Your task to perform on an android device: toggle notification dots Image 0: 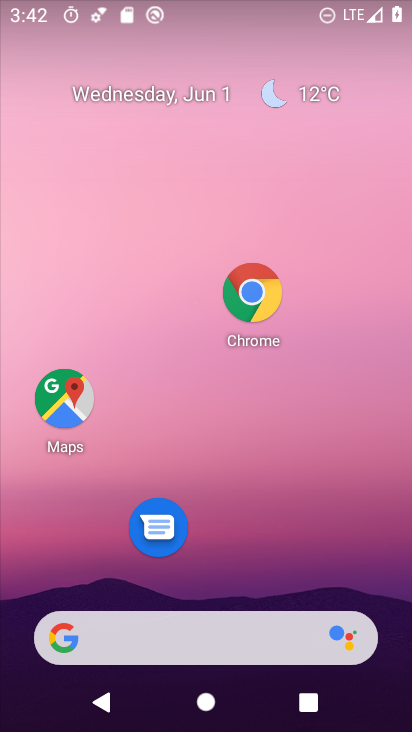
Step 0: drag from (236, 631) to (252, 236)
Your task to perform on an android device: toggle notification dots Image 1: 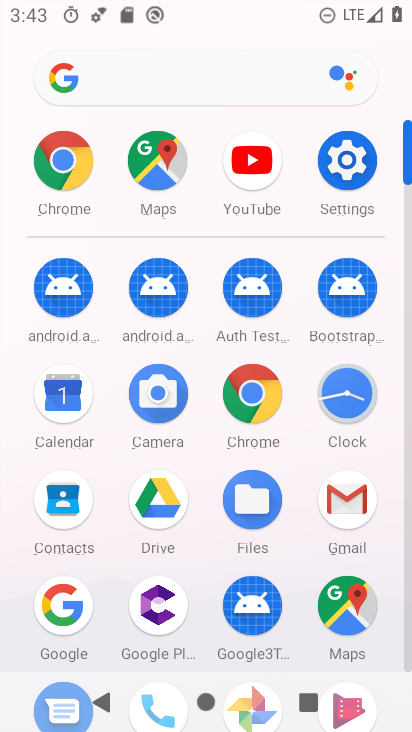
Step 1: click (358, 193)
Your task to perform on an android device: toggle notification dots Image 2: 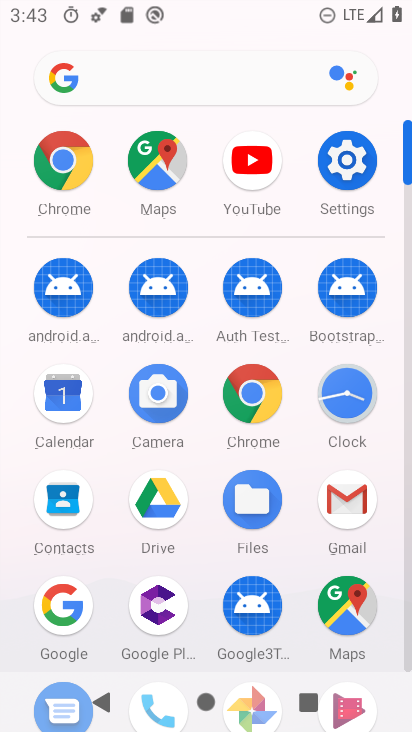
Step 2: click (343, 175)
Your task to perform on an android device: toggle notification dots Image 3: 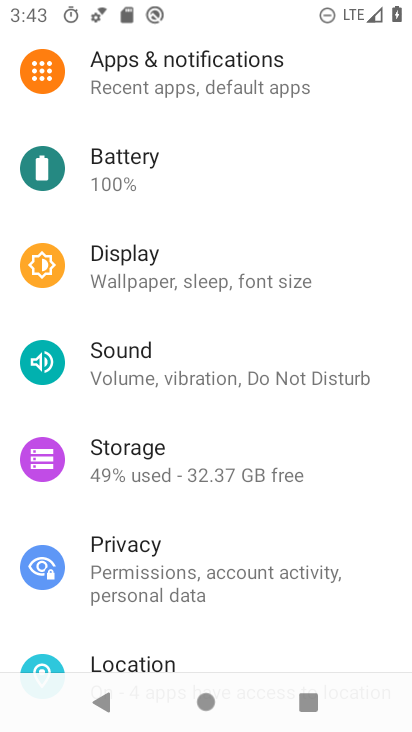
Step 3: drag from (232, 333) to (192, 605)
Your task to perform on an android device: toggle notification dots Image 4: 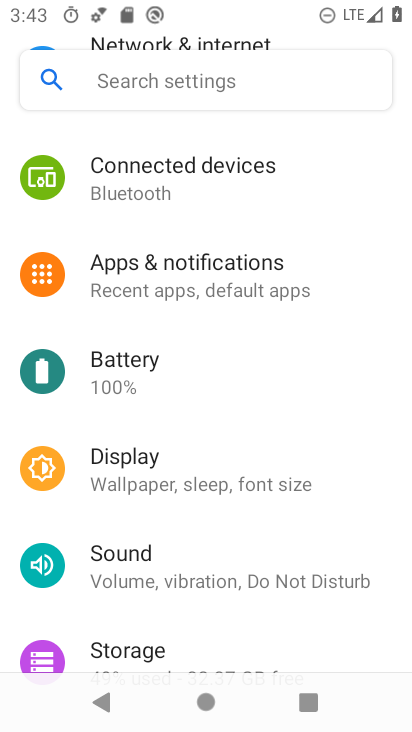
Step 4: click (264, 292)
Your task to perform on an android device: toggle notification dots Image 5: 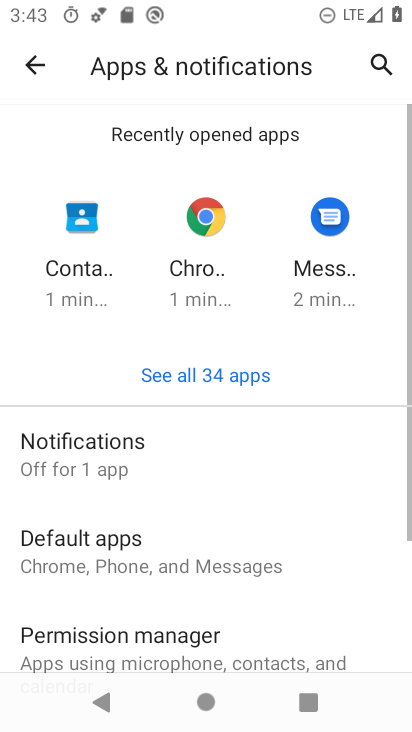
Step 5: drag from (162, 583) to (203, 274)
Your task to perform on an android device: toggle notification dots Image 6: 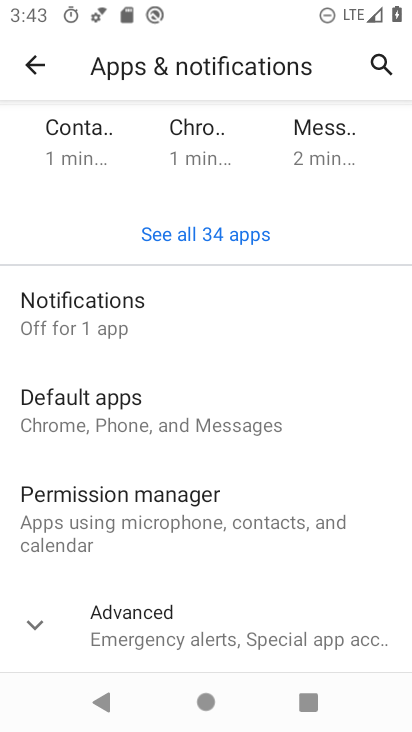
Step 6: click (162, 306)
Your task to perform on an android device: toggle notification dots Image 7: 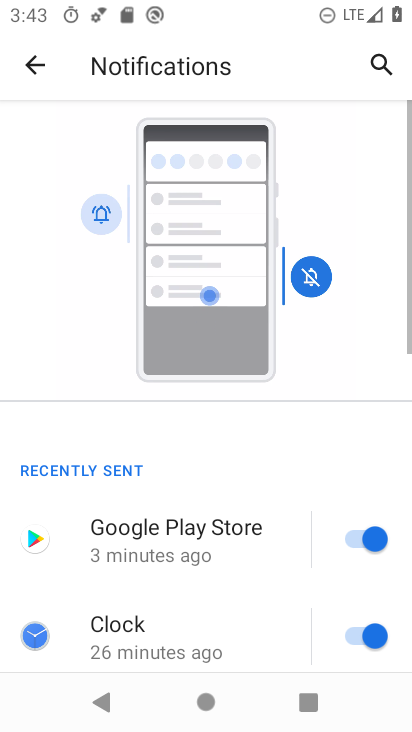
Step 7: drag from (150, 486) to (210, 191)
Your task to perform on an android device: toggle notification dots Image 8: 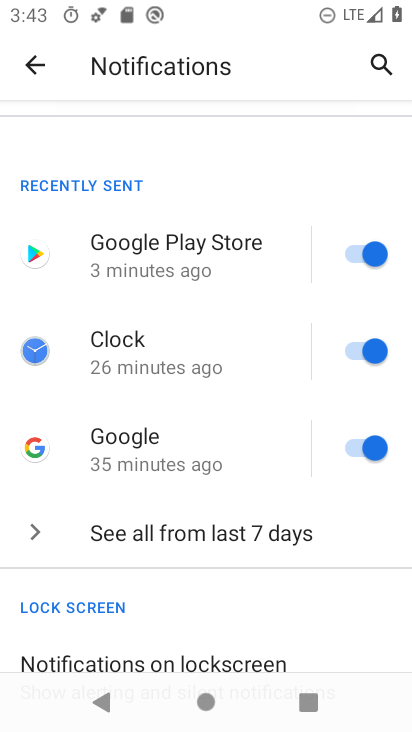
Step 8: drag from (164, 515) to (181, 398)
Your task to perform on an android device: toggle notification dots Image 9: 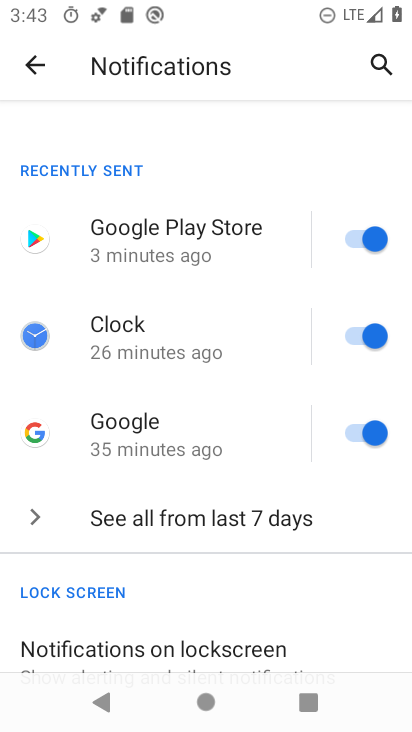
Step 9: drag from (189, 612) to (216, 157)
Your task to perform on an android device: toggle notification dots Image 10: 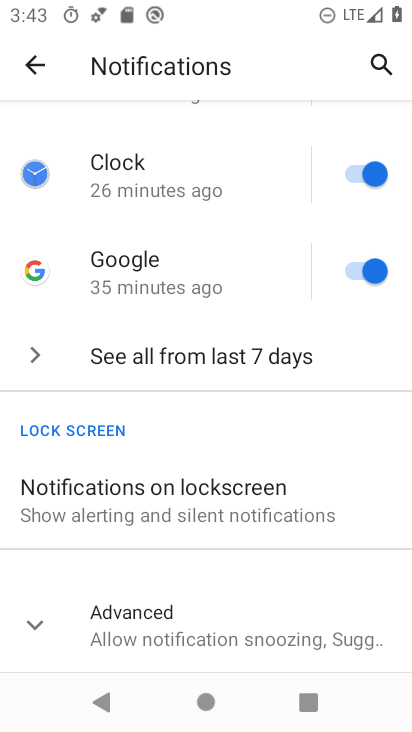
Step 10: click (158, 611)
Your task to perform on an android device: toggle notification dots Image 11: 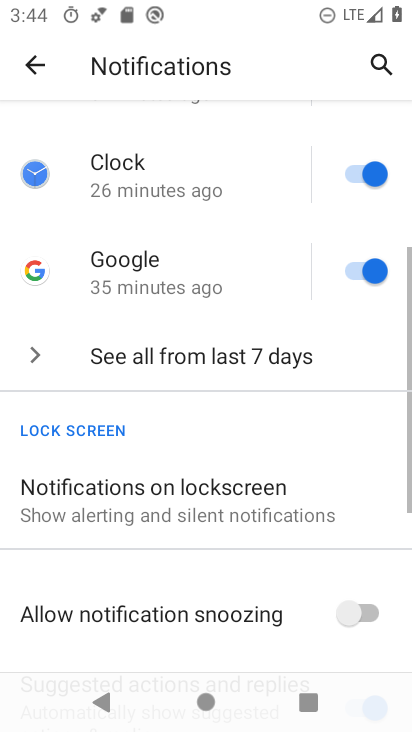
Step 11: drag from (151, 565) to (208, 130)
Your task to perform on an android device: toggle notification dots Image 12: 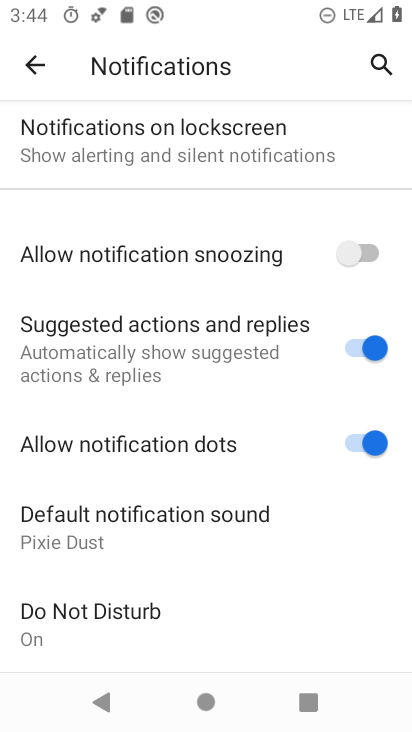
Step 12: click (223, 449)
Your task to perform on an android device: toggle notification dots Image 13: 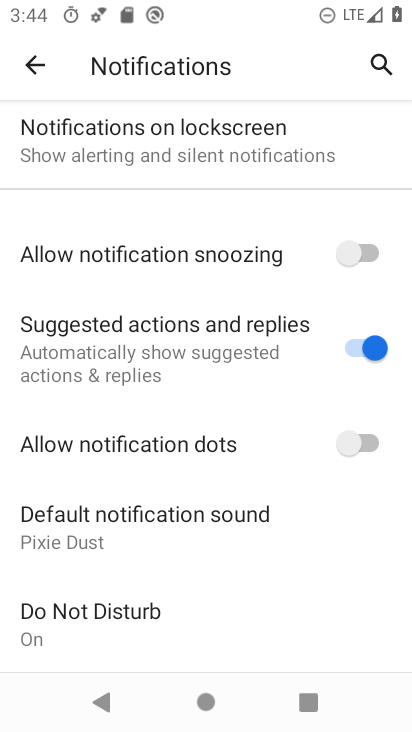
Step 13: task complete